Your task to perform on an android device: Open the Play Movies app and select the watchlist tab. Image 0: 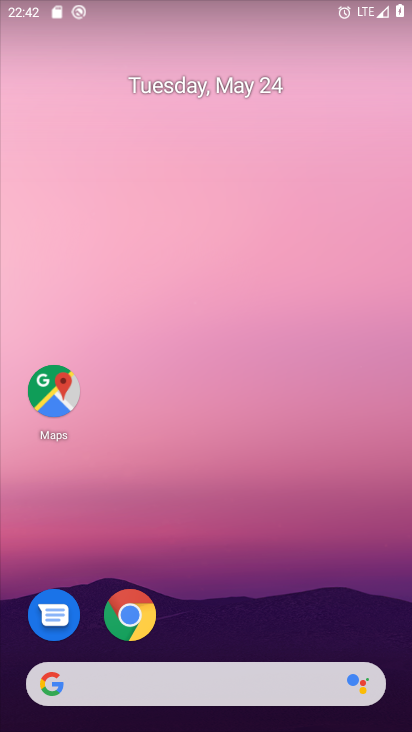
Step 0: drag from (252, 590) to (331, 153)
Your task to perform on an android device: Open the Play Movies app and select the watchlist tab. Image 1: 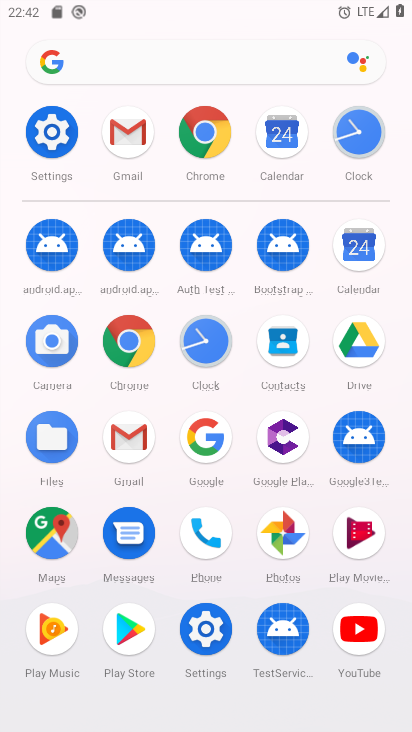
Step 1: click (353, 525)
Your task to perform on an android device: Open the Play Movies app and select the watchlist tab. Image 2: 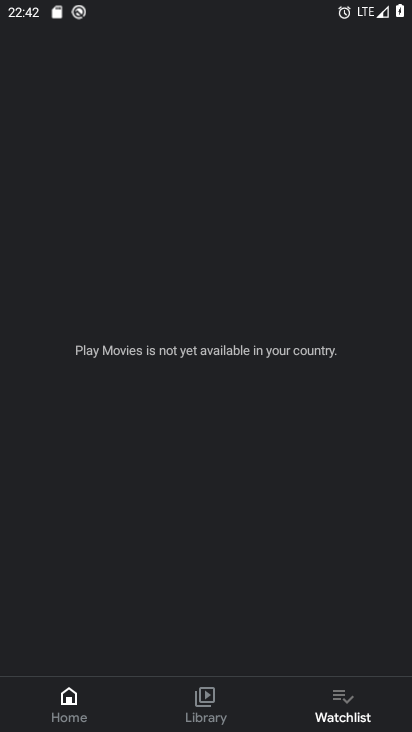
Step 2: task complete